Your task to perform on an android device: visit the assistant section in the google photos Image 0: 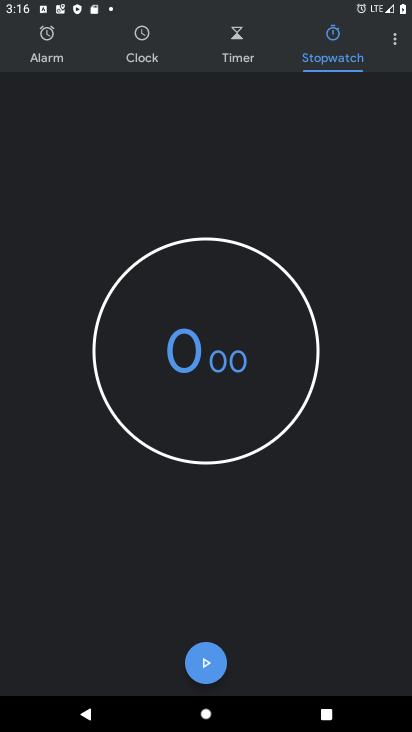
Step 0: press home button
Your task to perform on an android device: visit the assistant section in the google photos Image 1: 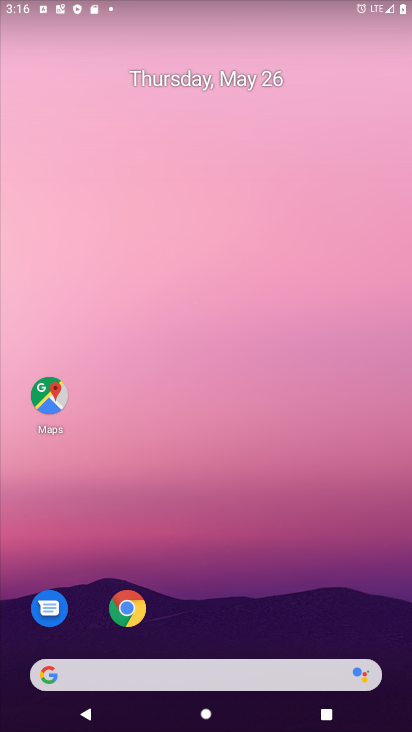
Step 1: drag from (354, 619) to (226, 91)
Your task to perform on an android device: visit the assistant section in the google photos Image 2: 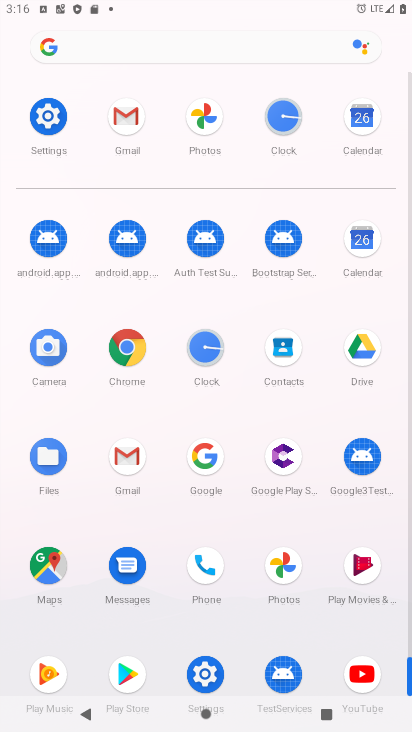
Step 2: click (285, 566)
Your task to perform on an android device: visit the assistant section in the google photos Image 3: 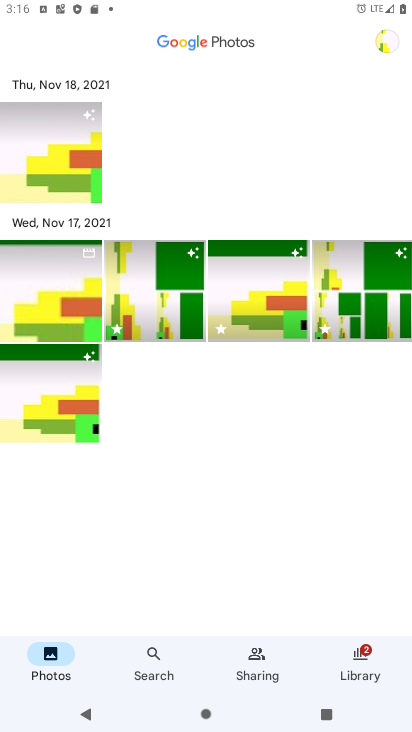
Step 3: click (360, 661)
Your task to perform on an android device: visit the assistant section in the google photos Image 4: 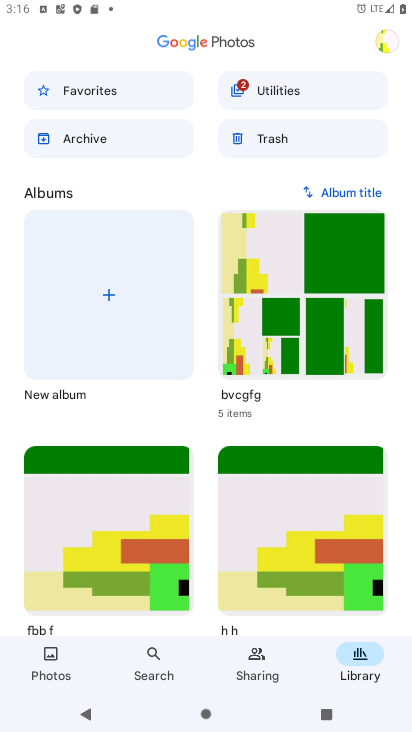
Step 4: drag from (206, 302) to (195, 45)
Your task to perform on an android device: visit the assistant section in the google photos Image 5: 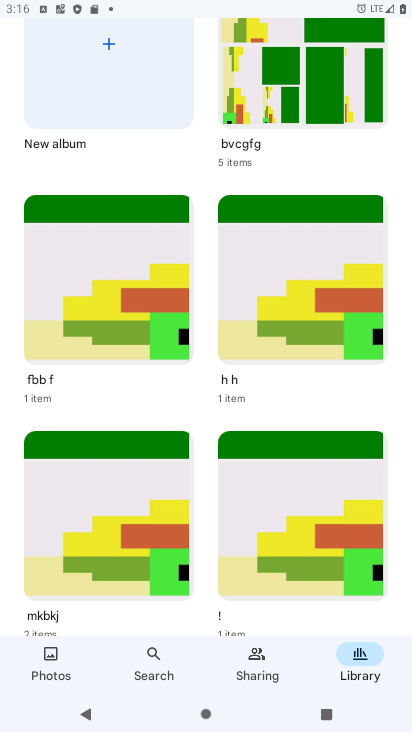
Step 5: click (240, 649)
Your task to perform on an android device: visit the assistant section in the google photos Image 6: 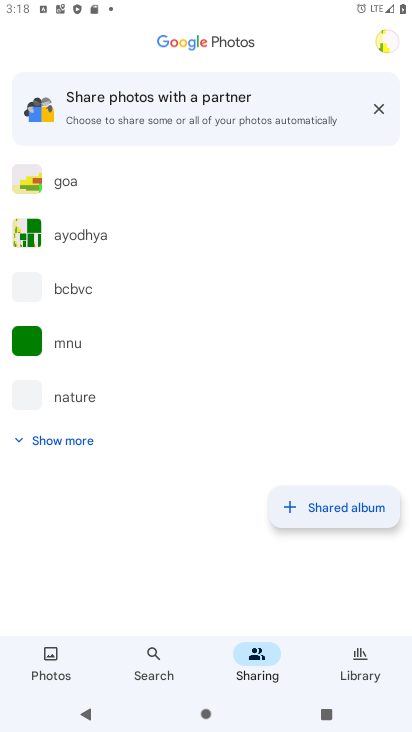
Step 6: task complete